Your task to perform on an android device: Search for a new hair product Image 0: 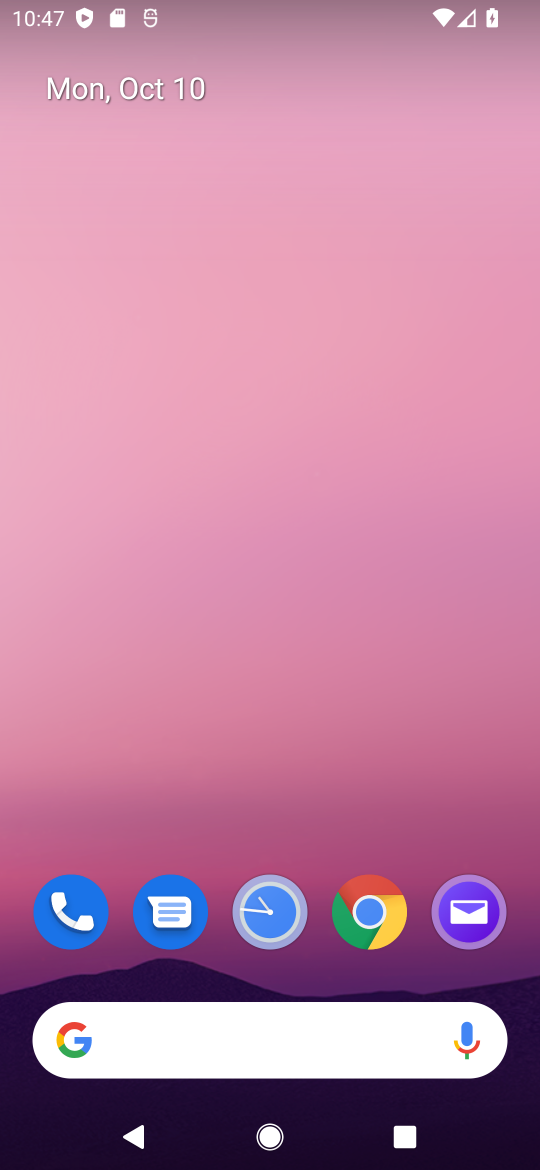
Step 0: click (72, 1037)
Your task to perform on an android device: Search for a new hair product Image 1: 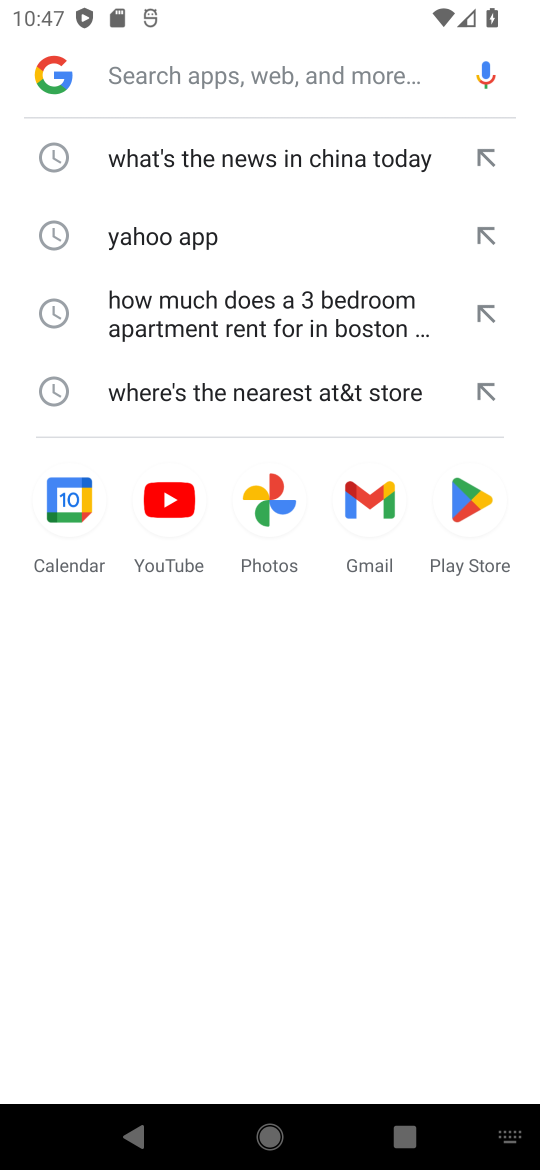
Step 1: click (340, 83)
Your task to perform on an android device: Search for a new hair product Image 2: 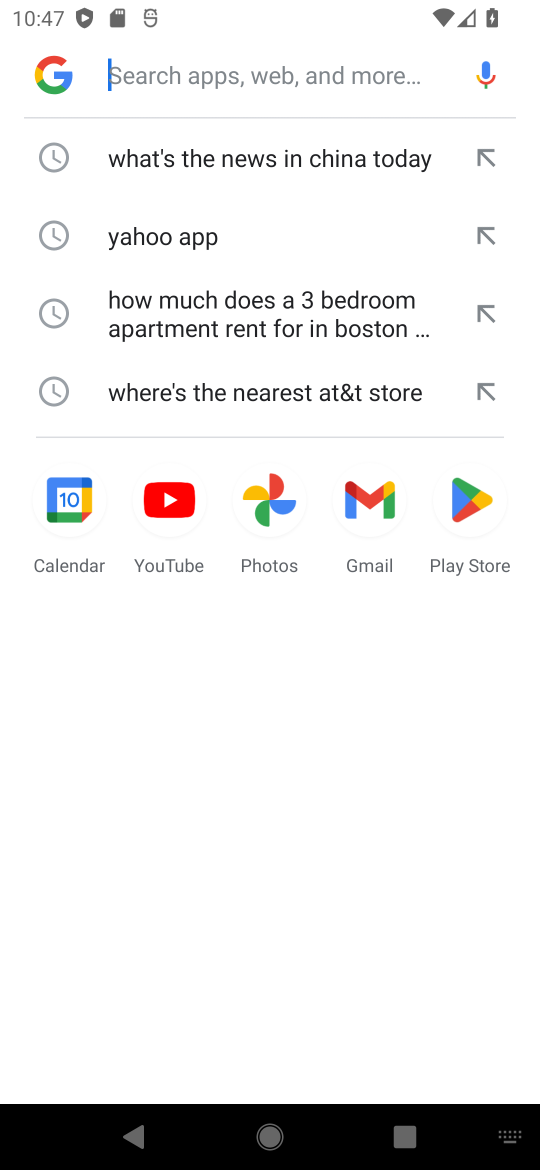
Step 2: type "new hair product"
Your task to perform on an android device: Search for a new hair product Image 3: 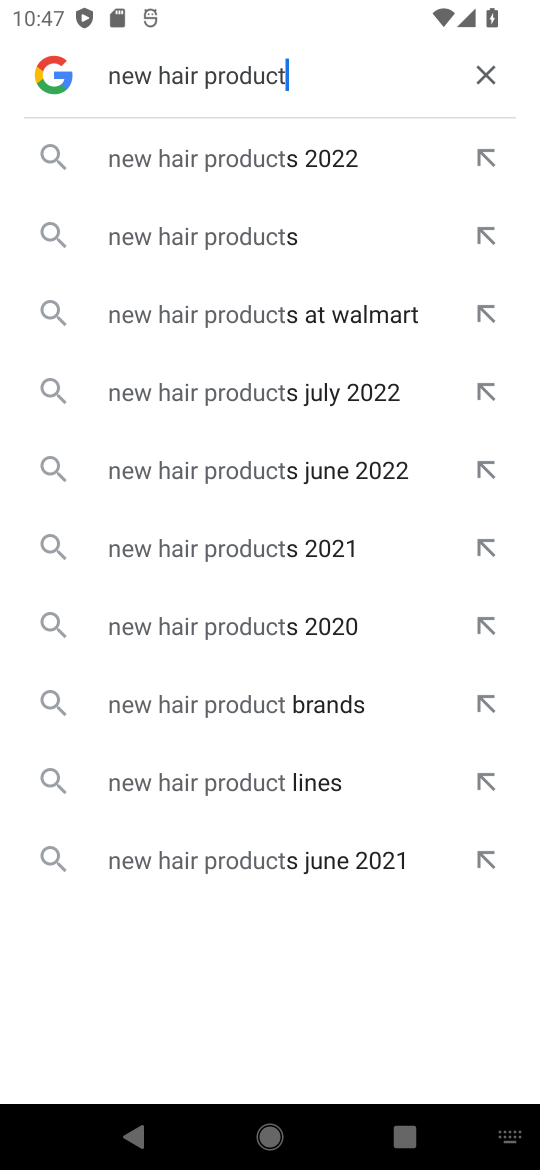
Step 3: click (263, 247)
Your task to perform on an android device: Search for a new hair product Image 4: 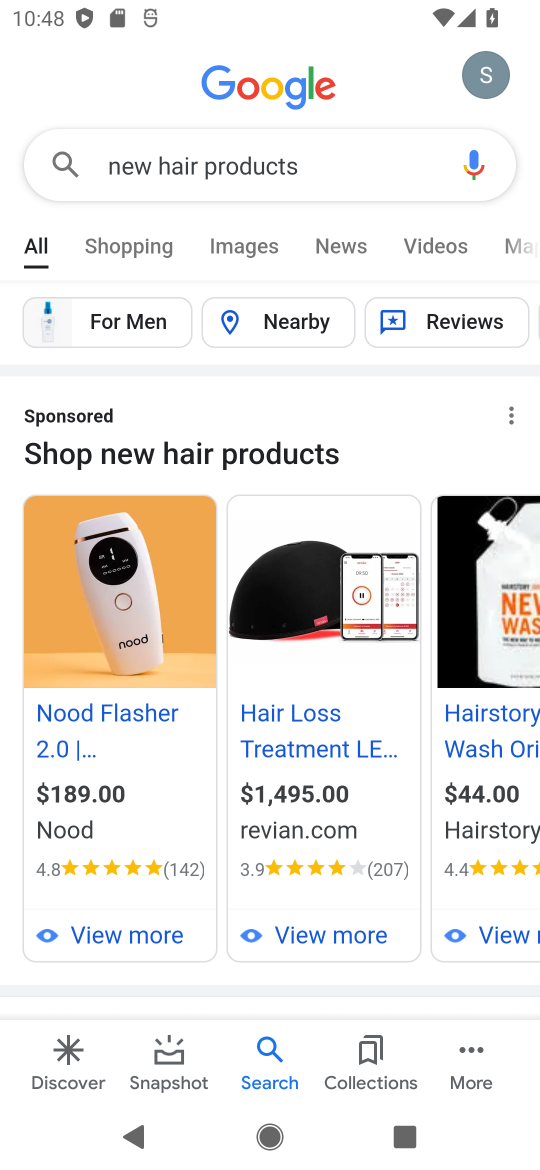
Step 4: click (157, 706)
Your task to perform on an android device: Search for a new hair product Image 5: 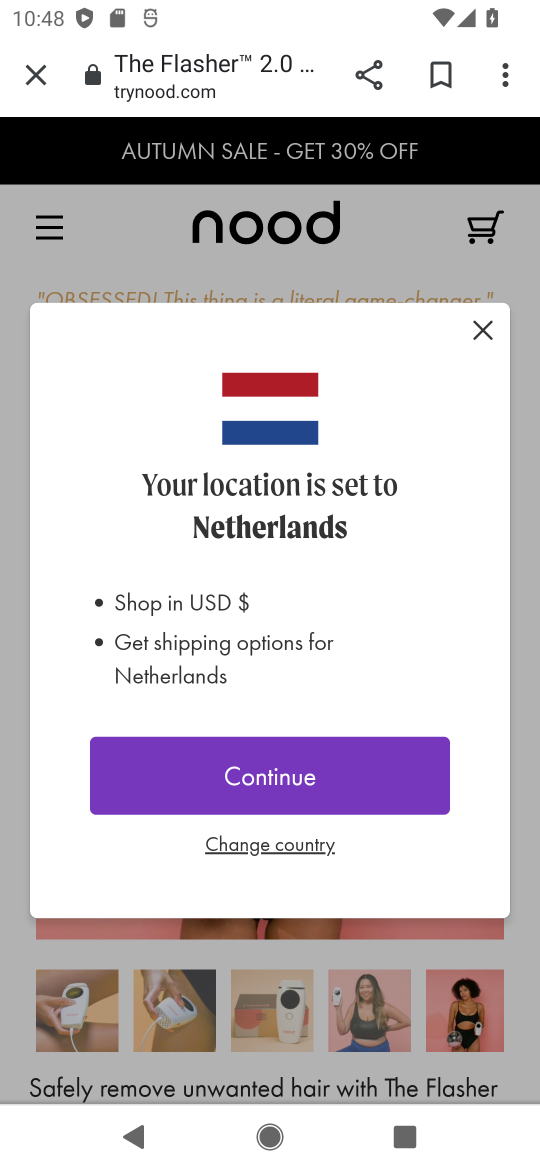
Step 5: click (480, 332)
Your task to perform on an android device: Search for a new hair product Image 6: 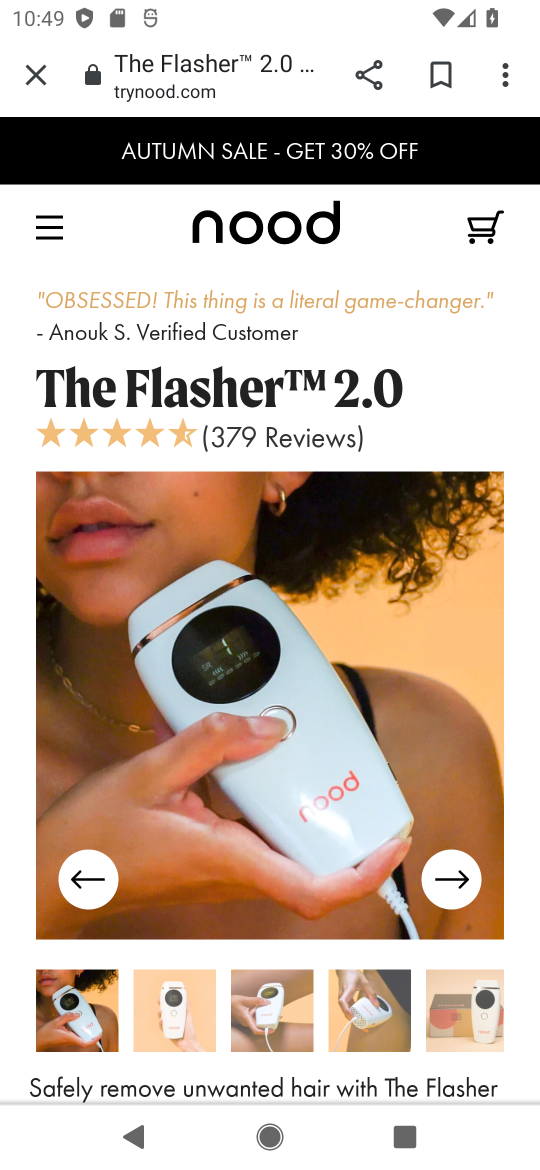
Step 6: task complete